Your task to perform on an android device: allow notifications from all sites in the chrome app Image 0: 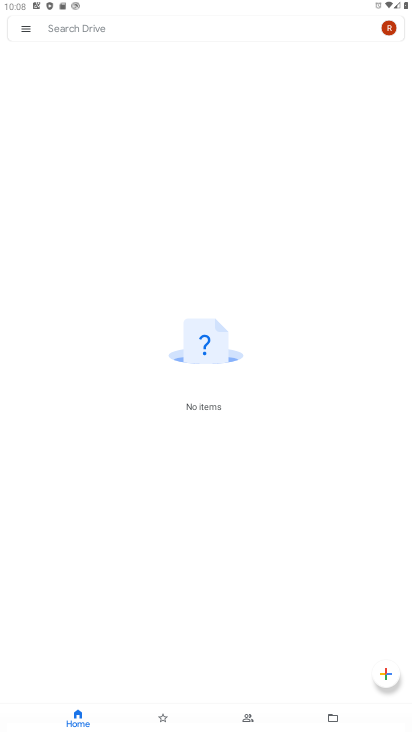
Step 0: press home button
Your task to perform on an android device: allow notifications from all sites in the chrome app Image 1: 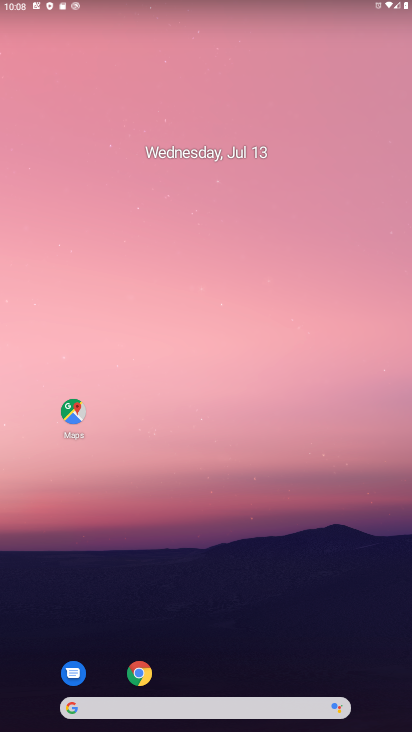
Step 1: drag from (233, 671) to (274, 29)
Your task to perform on an android device: allow notifications from all sites in the chrome app Image 2: 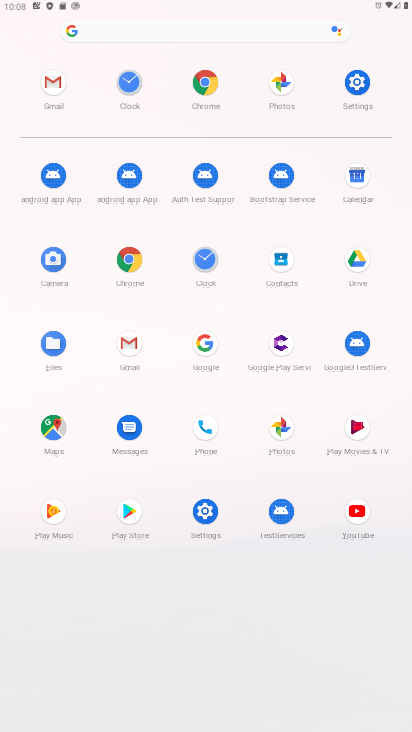
Step 2: click (207, 88)
Your task to perform on an android device: allow notifications from all sites in the chrome app Image 3: 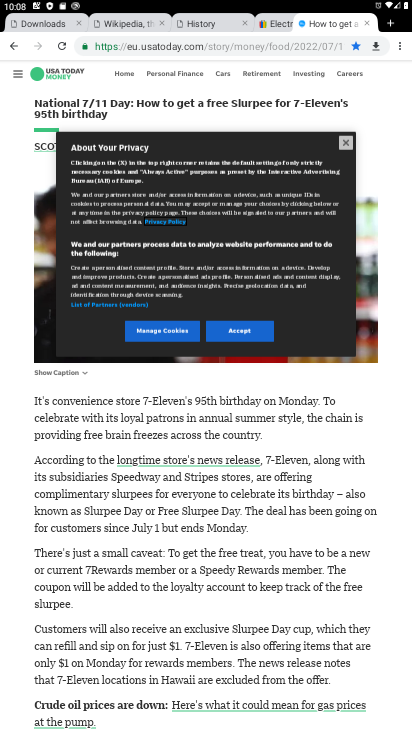
Step 3: click (207, 88)
Your task to perform on an android device: allow notifications from all sites in the chrome app Image 4: 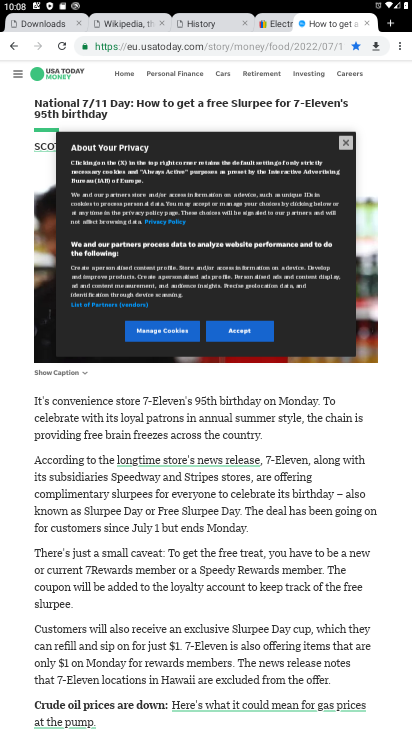
Step 4: click (407, 42)
Your task to perform on an android device: allow notifications from all sites in the chrome app Image 5: 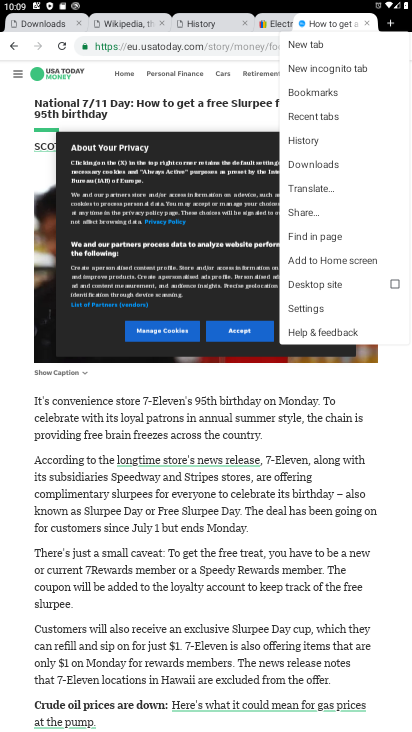
Step 5: click (297, 304)
Your task to perform on an android device: allow notifications from all sites in the chrome app Image 6: 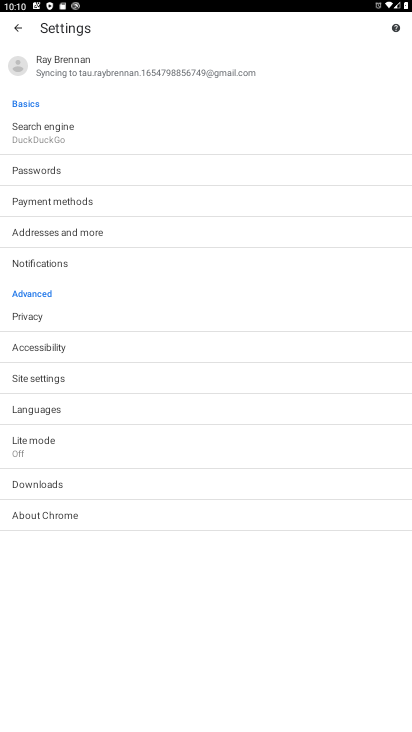
Step 6: click (51, 271)
Your task to perform on an android device: allow notifications from all sites in the chrome app Image 7: 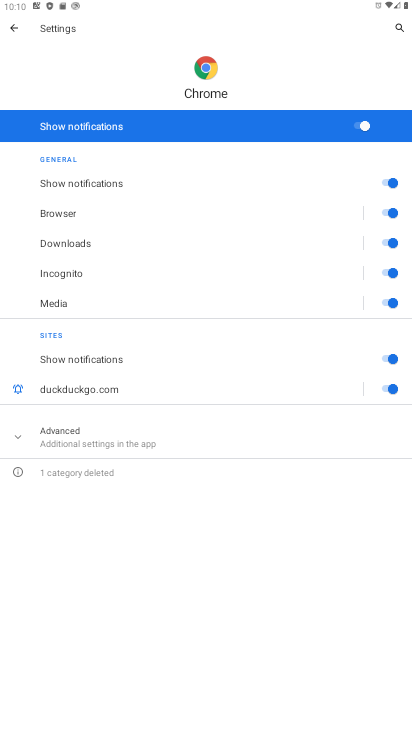
Step 7: task complete